Your task to perform on an android device: Empty the shopping cart on target.com. Search for dell xps on target.com, select the first entry, and add it to the cart. Image 0: 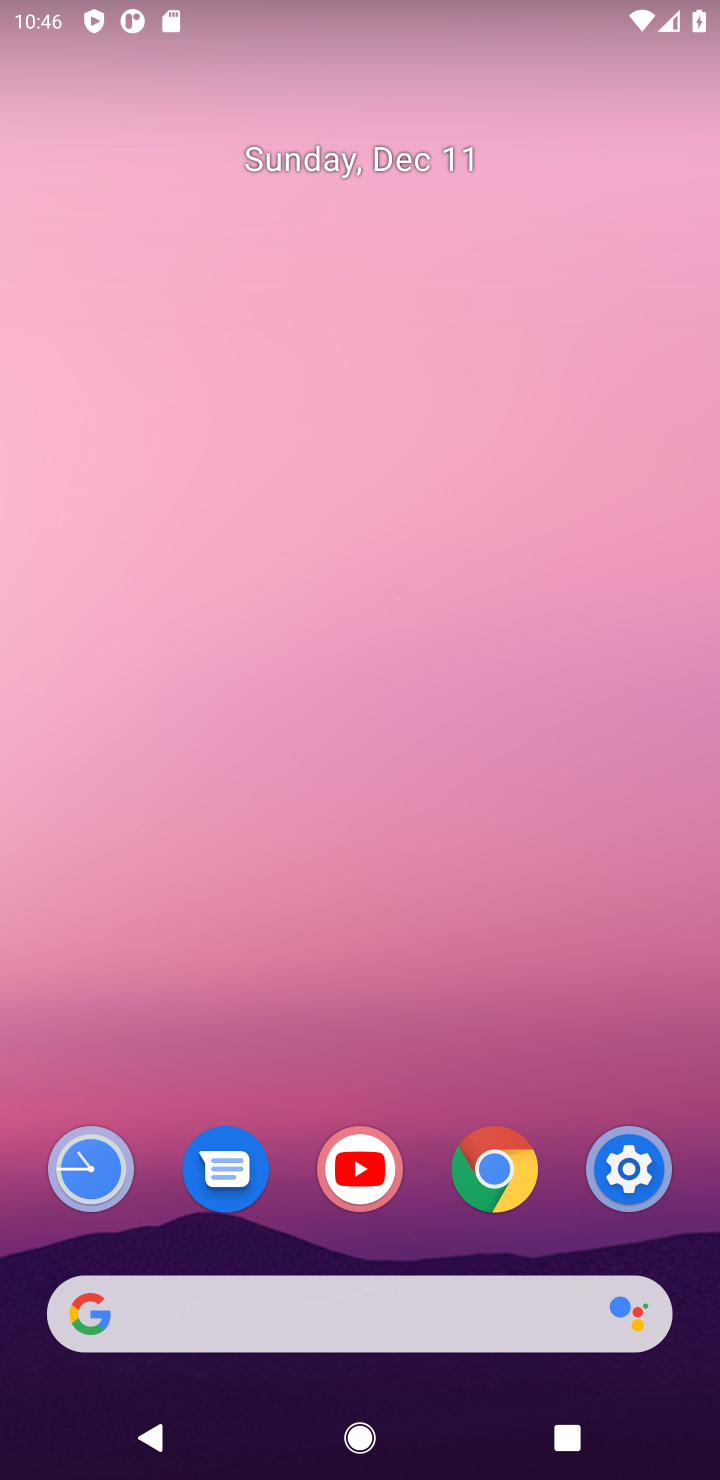
Step 0: click (498, 1179)
Your task to perform on an android device: Empty the shopping cart on target.com. Search for dell xps on target.com, select the first entry, and add it to the cart. Image 1: 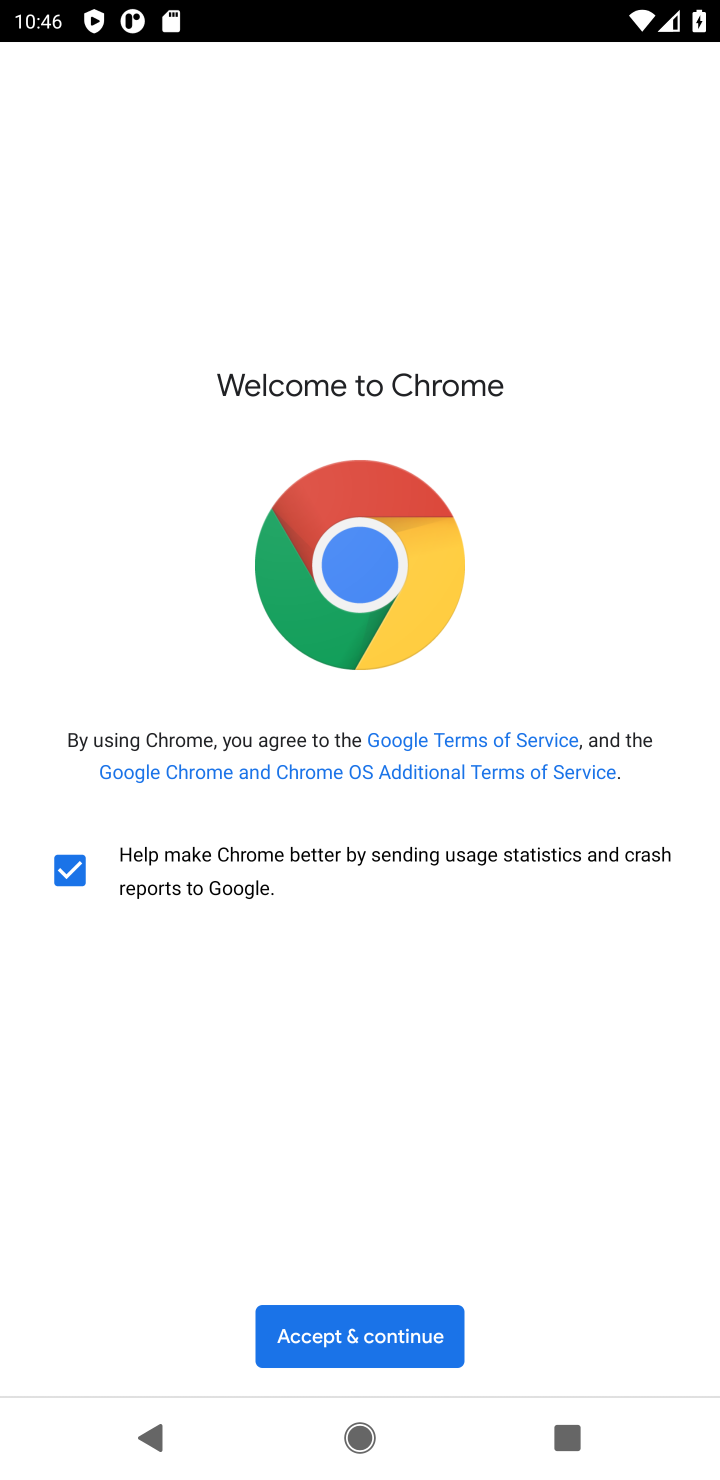
Step 1: click (379, 1345)
Your task to perform on an android device: Empty the shopping cart on target.com. Search for dell xps on target.com, select the first entry, and add it to the cart. Image 2: 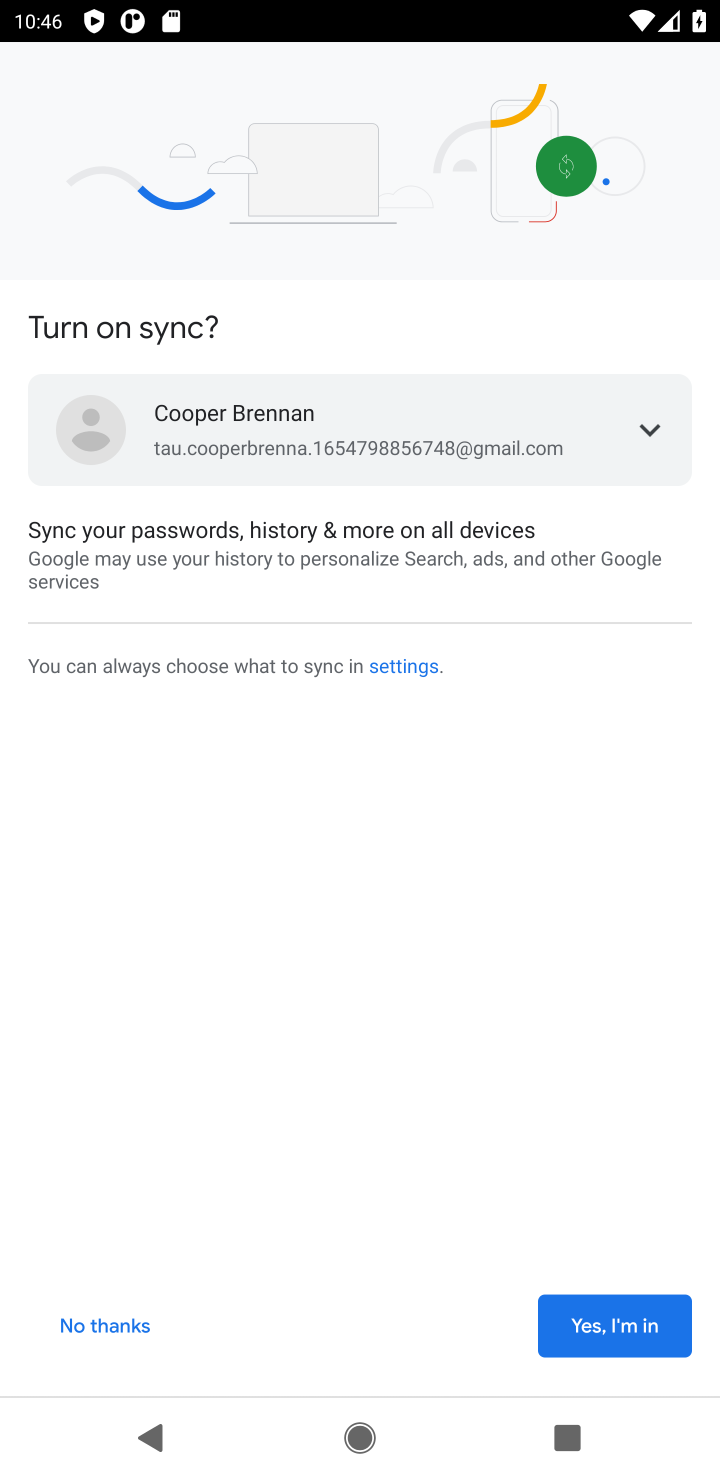
Step 2: click (107, 1332)
Your task to perform on an android device: Empty the shopping cart on target.com. Search for dell xps on target.com, select the first entry, and add it to the cart. Image 3: 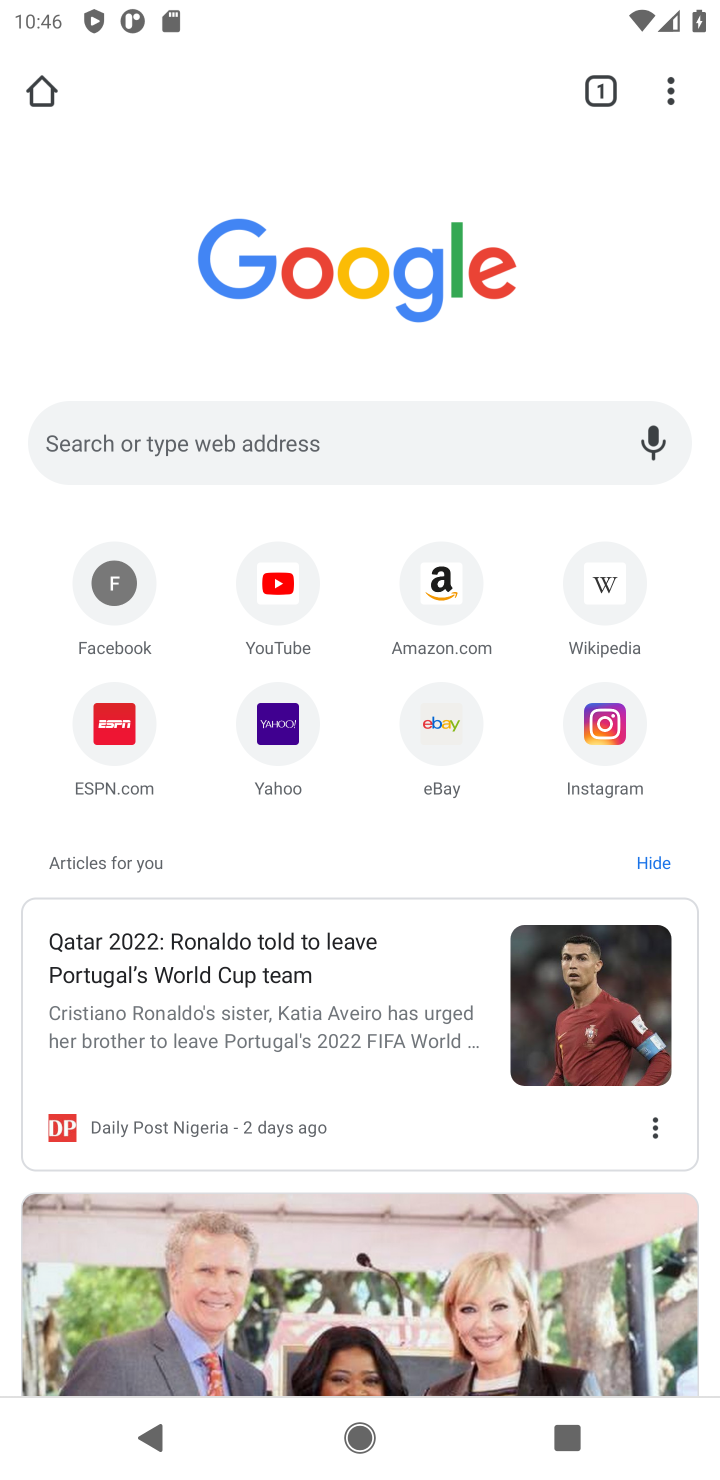
Step 3: click (163, 437)
Your task to perform on an android device: Empty the shopping cart on target.com. Search for dell xps on target.com, select the first entry, and add it to the cart. Image 4: 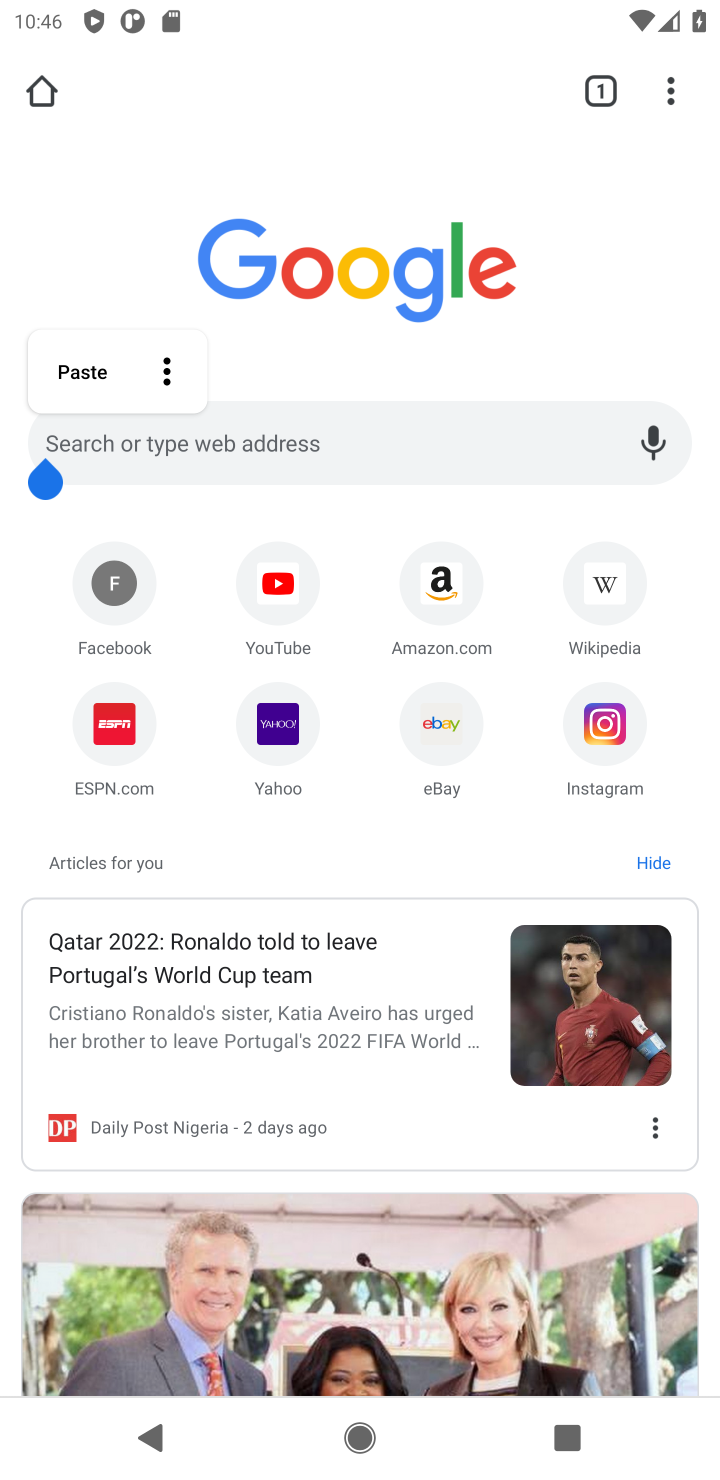
Step 4: click (241, 450)
Your task to perform on an android device: Empty the shopping cart on target.com. Search for dell xps on target.com, select the first entry, and add it to the cart. Image 5: 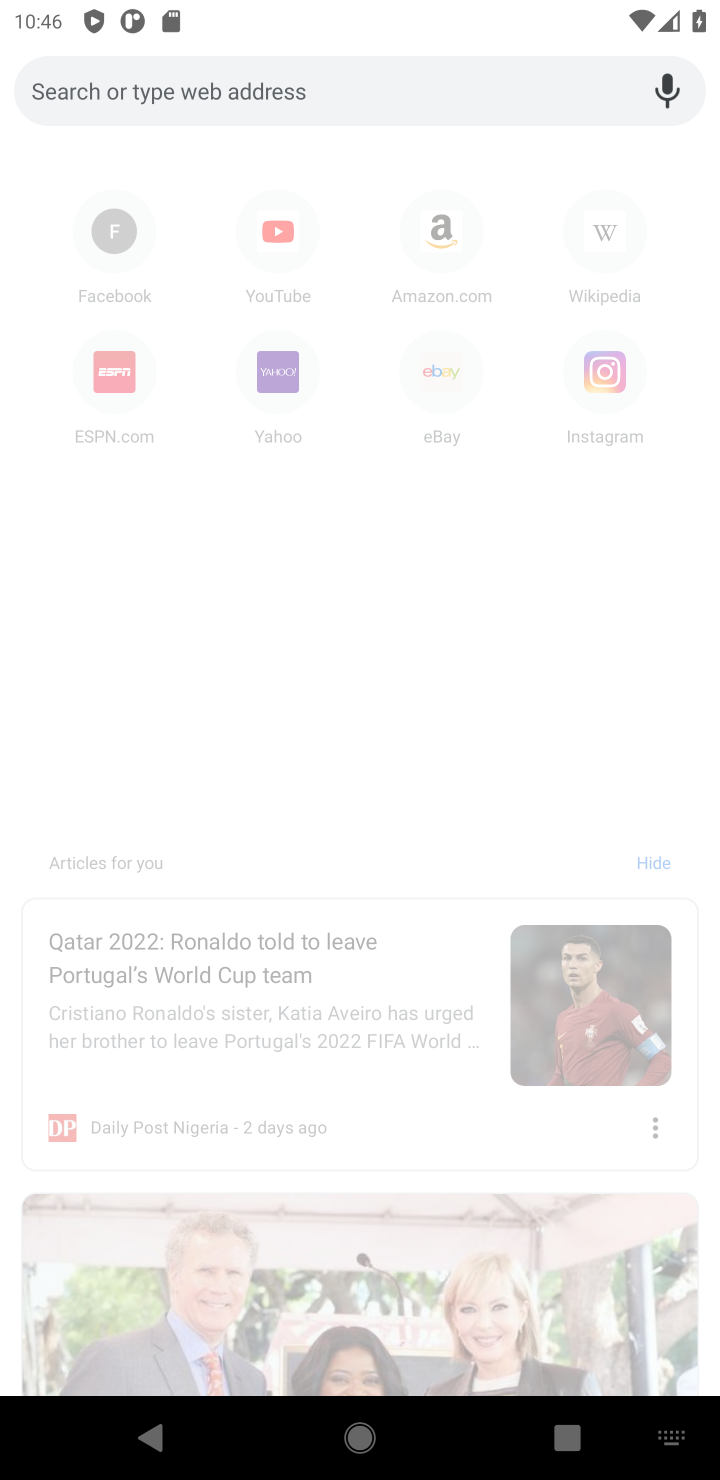
Step 5: type "target.com"
Your task to perform on an android device: Empty the shopping cart on target.com. Search for dell xps on target.com, select the first entry, and add it to the cart. Image 6: 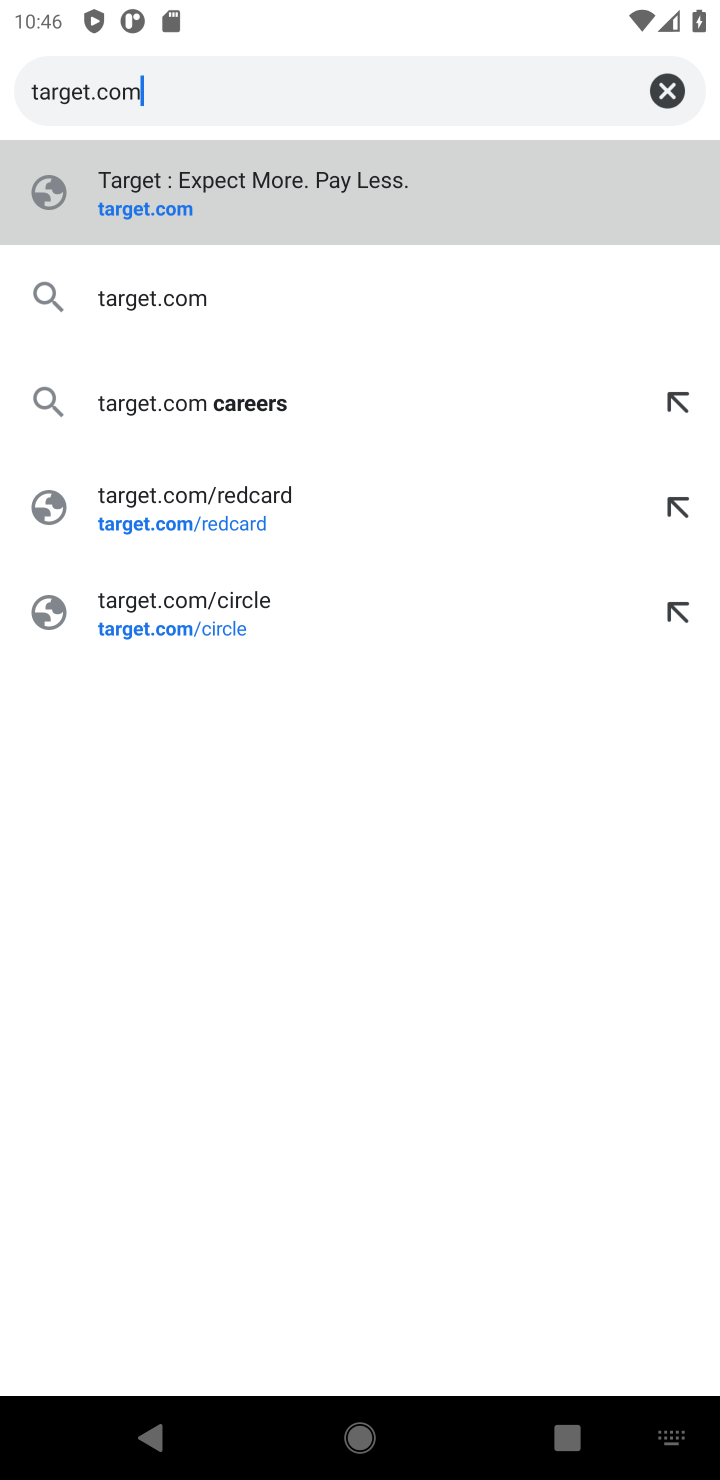
Step 6: click (132, 208)
Your task to perform on an android device: Empty the shopping cart on target.com. Search for dell xps on target.com, select the first entry, and add it to the cart. Image 7: 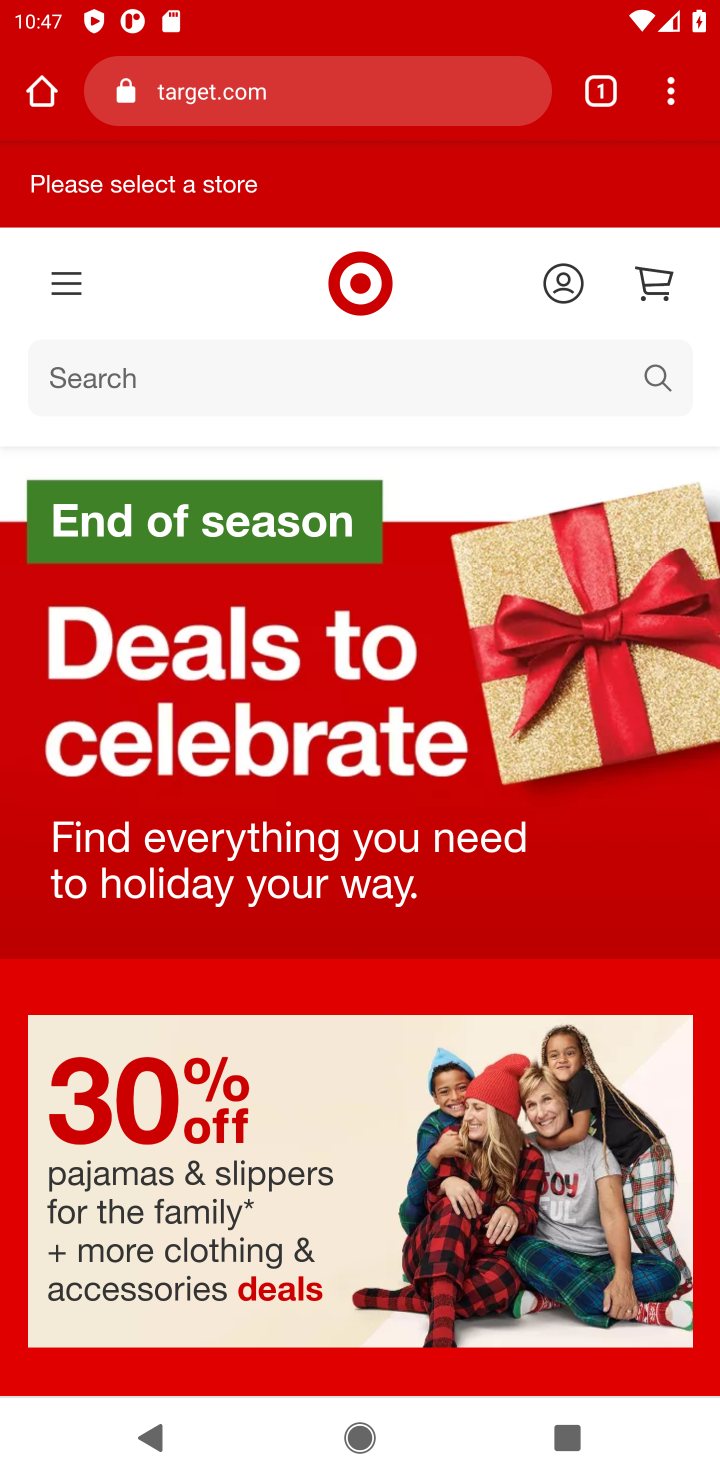
Step 7: click (655, 267)
Your task to perform on an android device: Empty the shopping cart on target.com. Search for dell xps on target.com, select the first entry, and add it to the cart. Image 8: 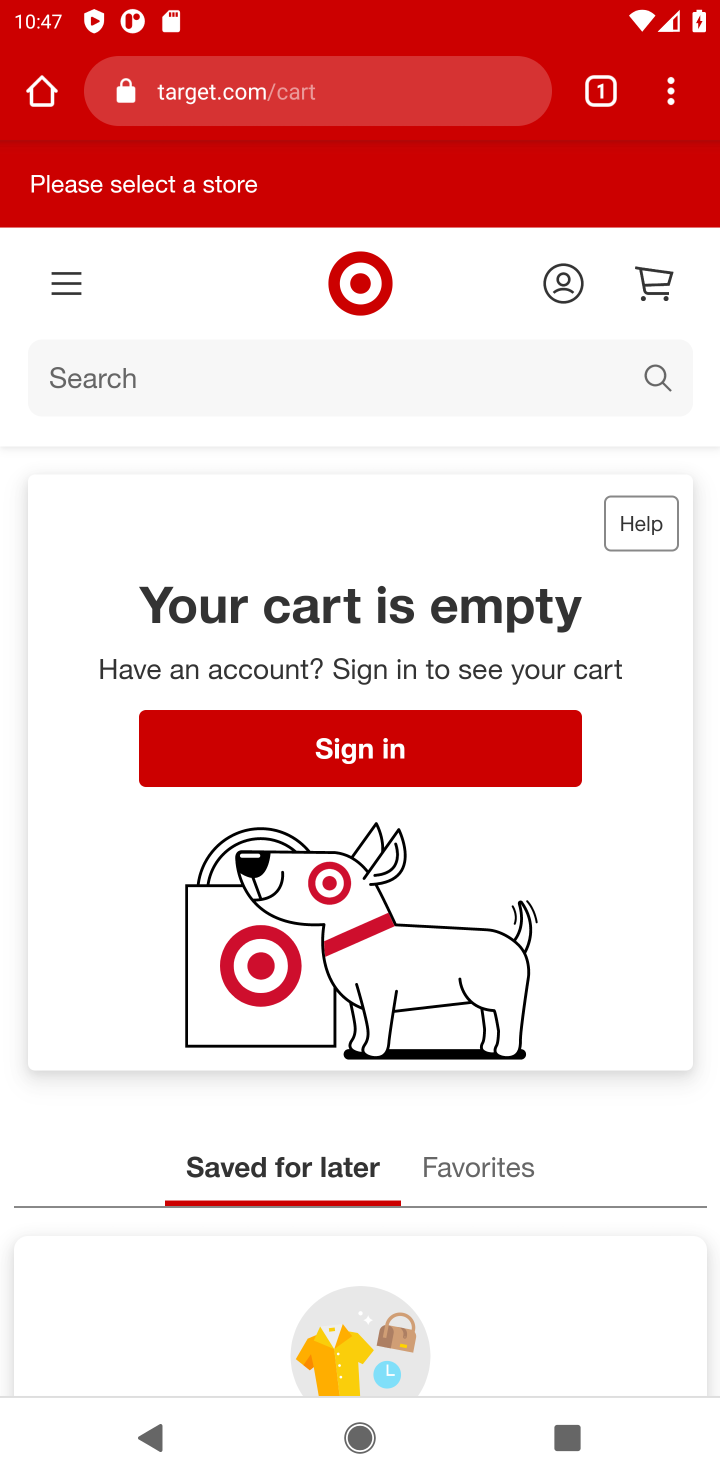
Step 8: click (70, 392)
Your task to perform on an android device: Empty the shopping cart on target.com. Search for dell xps on target.com, select the first entry, and add it to the cart. Image 9: 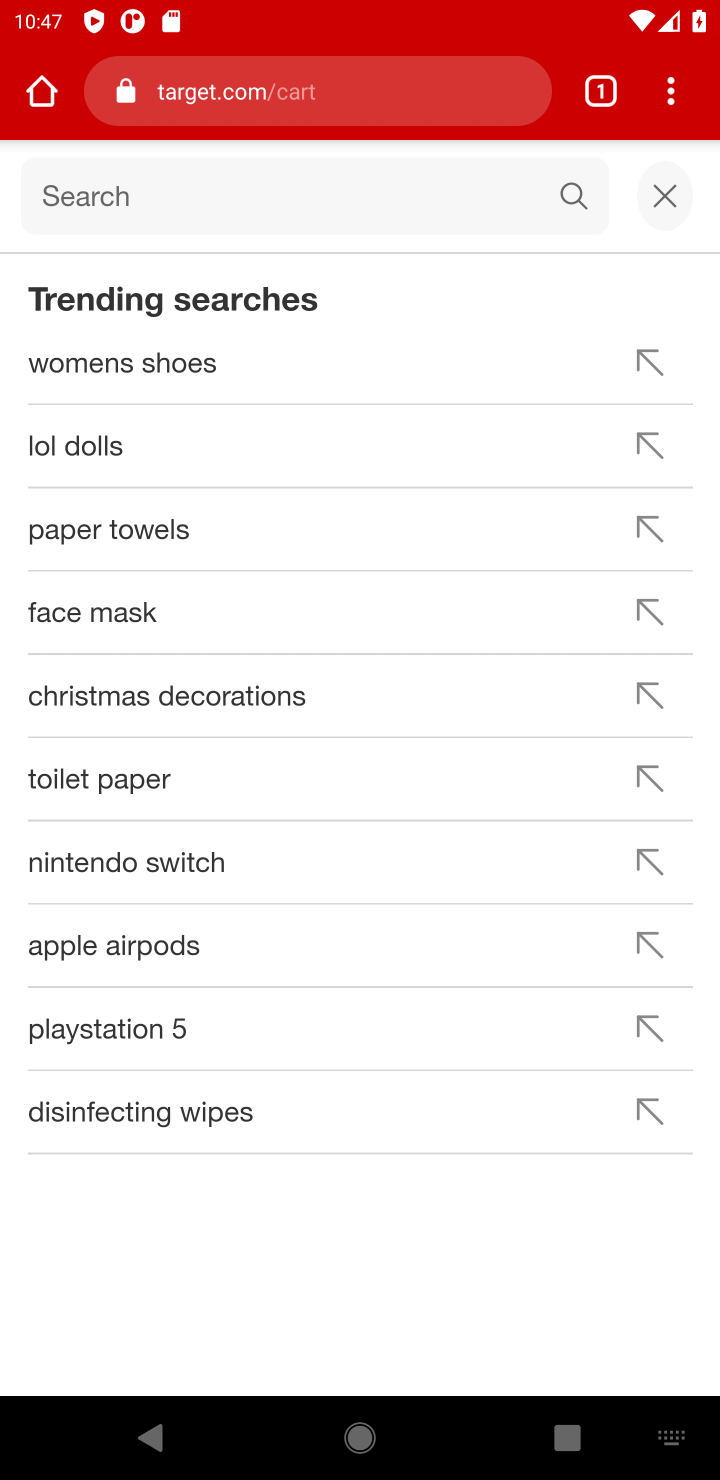
Step 9: type "dell xps "
Your task to perform on an android device: Empty the shopping cart on target.com. Search for dell xps on target.com, select the first entry, and add it to the cart. Image 10: 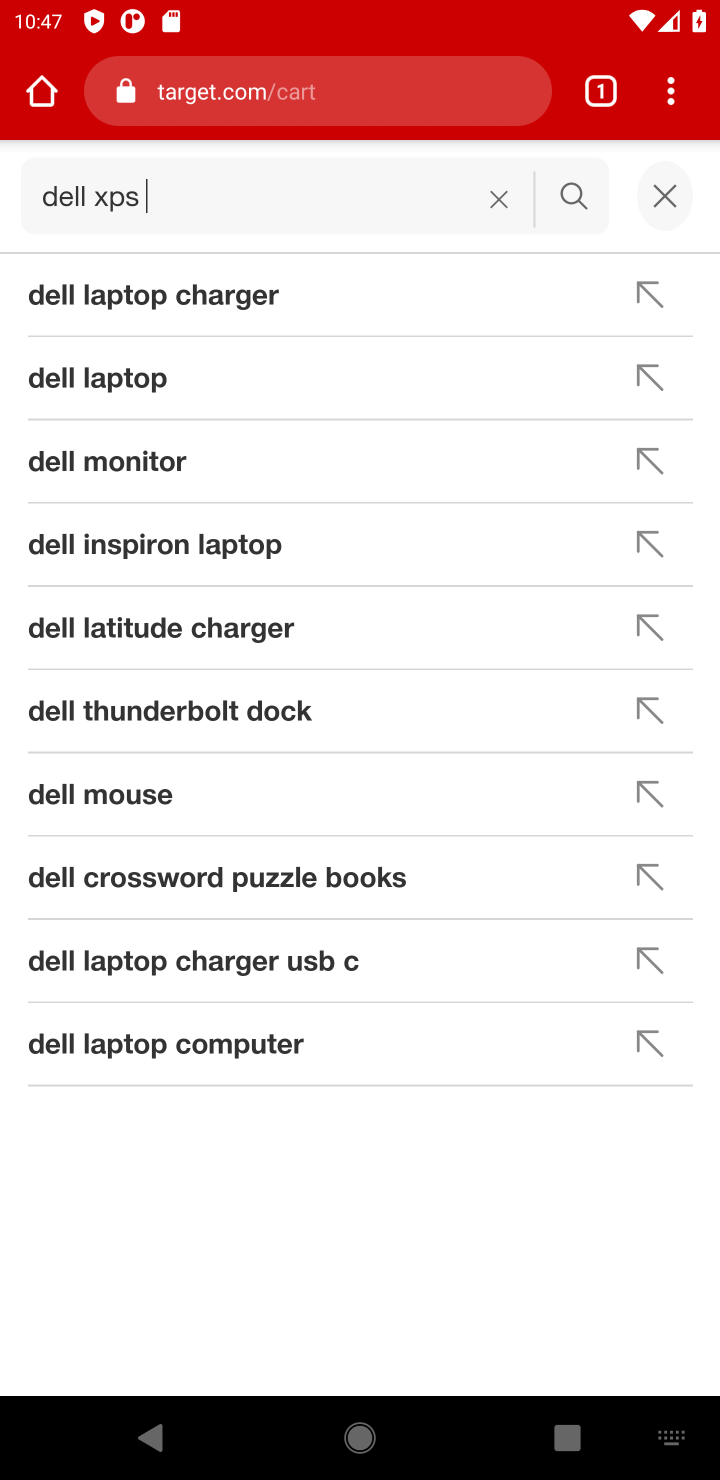
Step 10: click (584, 198)
Your task to perform on an android device: Empty the shopping cart on target.com. Search for dell xps on target.com, select the first entry, and add it to the cart. Image 11: 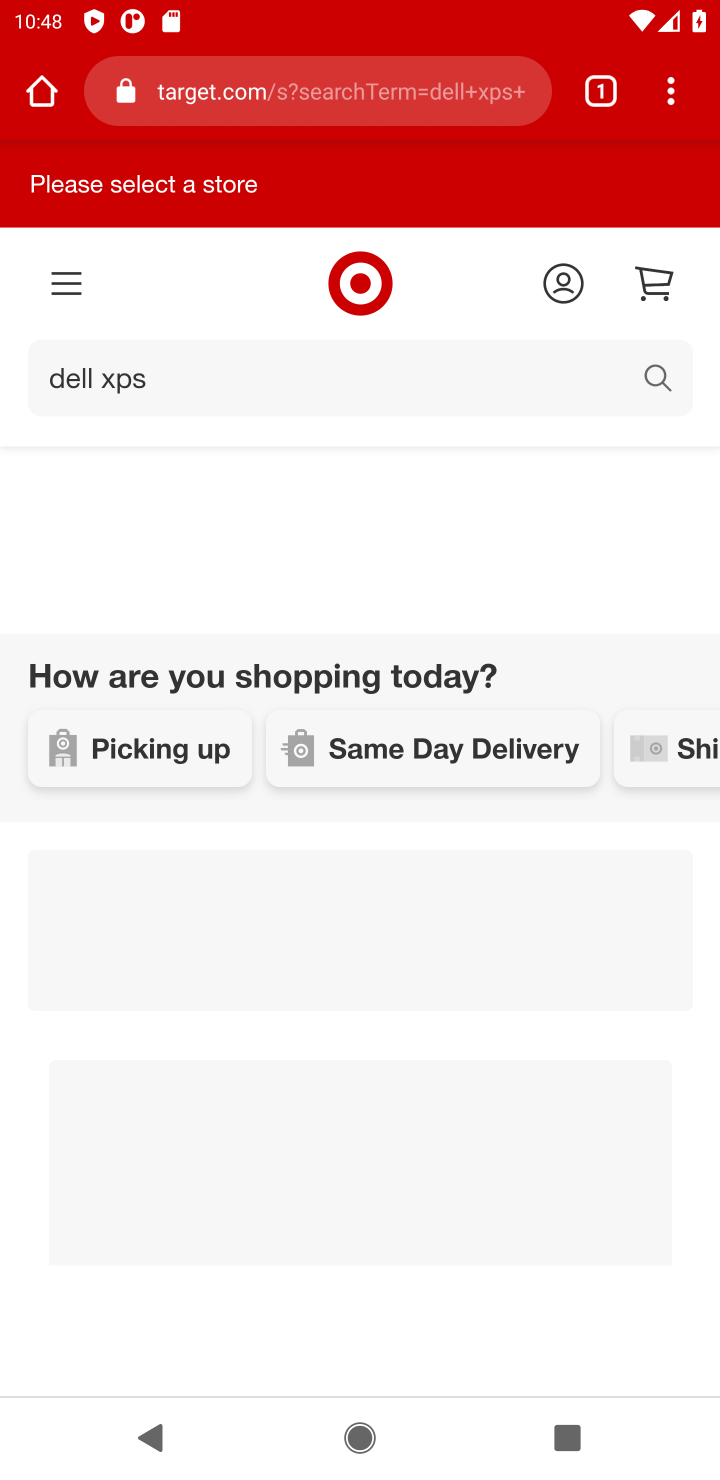
Step 11: task complete